Your task to perform on an android device: star an email in the gmail app Image 0: 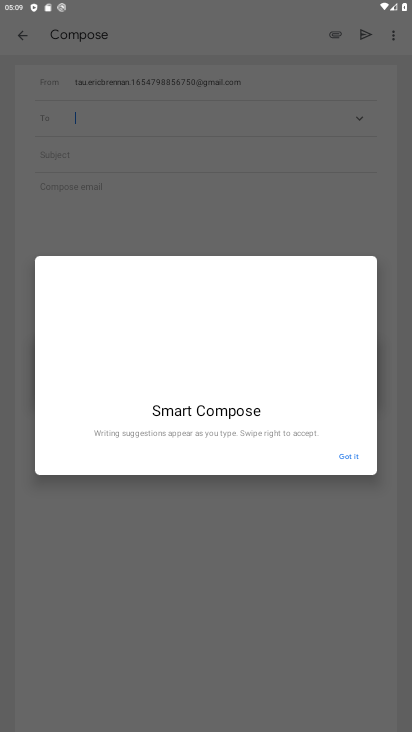
Step 0: press home button
Your task to perform on an android device: star an email in the gmail app Image 1: 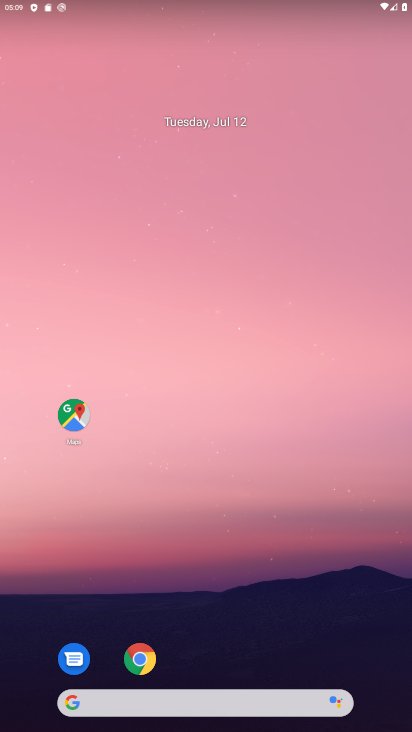
Step 1: drag from (358, 660) to (301, 249)
Your task to perform on an android device: star an email in the gmail app Image 2: 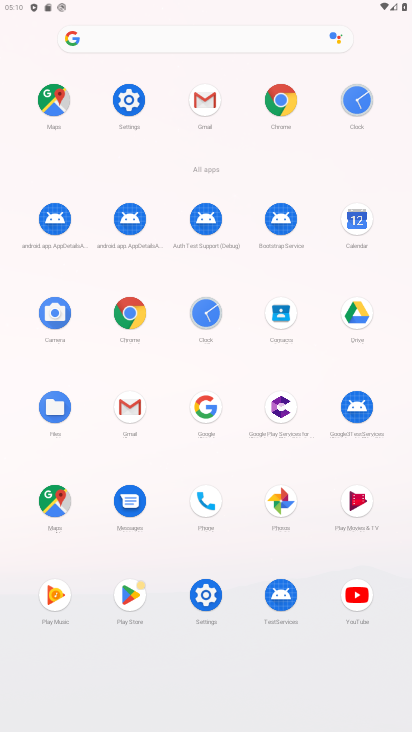
Step 2: click (126, 405)
Your task to perform on an android device: star an email in the gmail app Image 3: 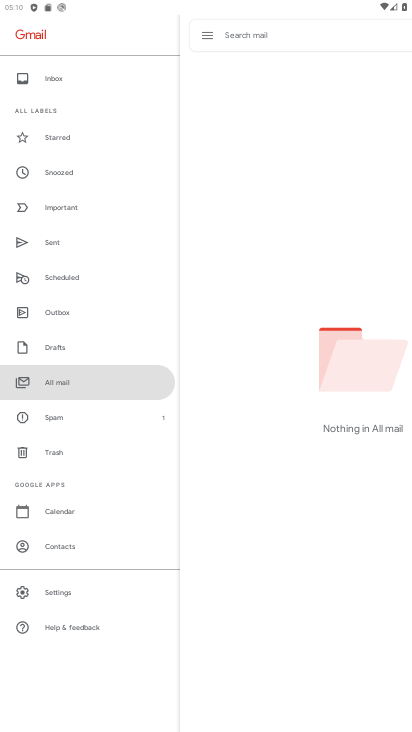
Step 3: click (68, 378)
Your task to perform on an android device: star an email in the gmail app Image 4: 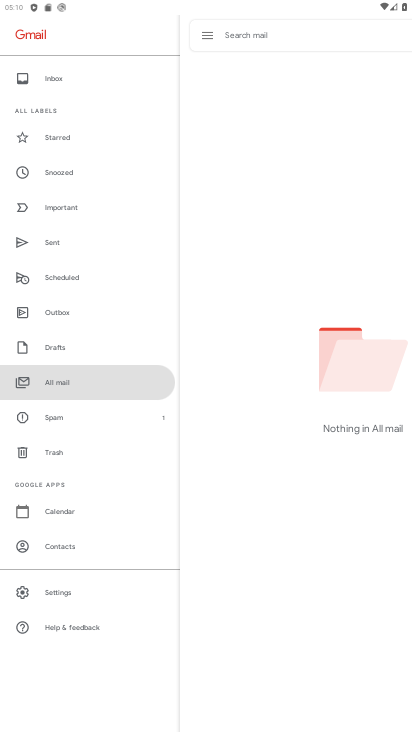
Step 4: task complete